Your task to perform on an android device: What's the weather today? Image 0: 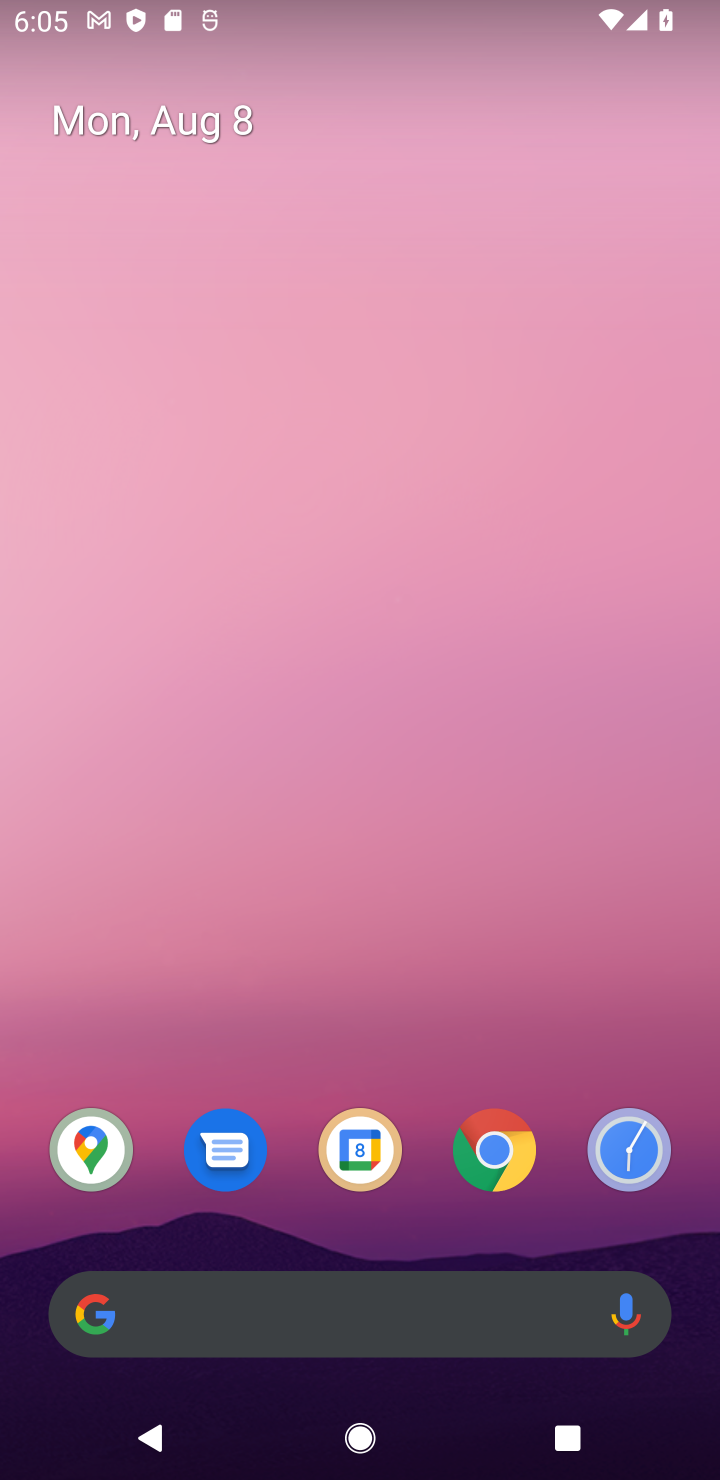
Step 0: click (303, 1292)
Your task to perform on an android device: What's the weather today? Image 1: 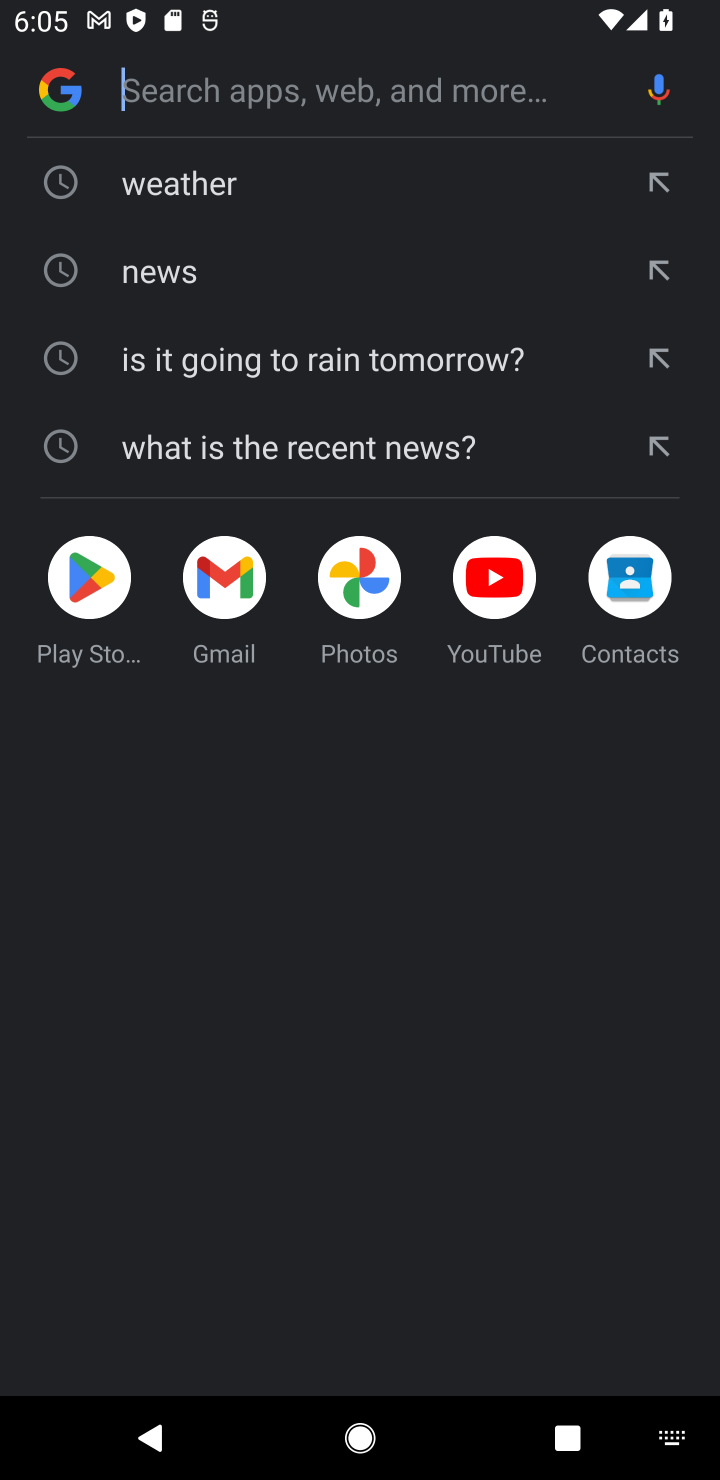
Step 1: type "weather"
Your task to perform on an android device: What's the weather today? Image 2: 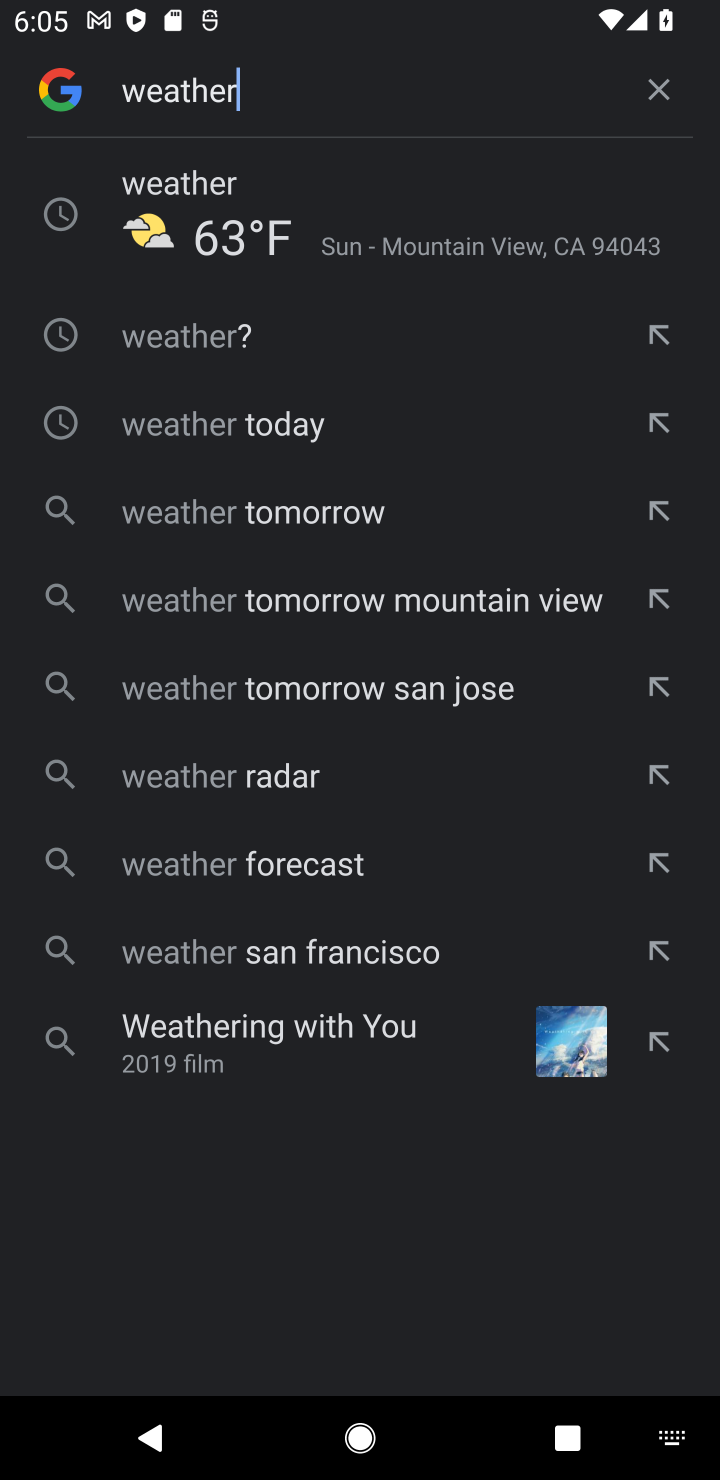
Step 2: click (287, 293)
Your task to perform on an android device: What's the weather today? Image 3: 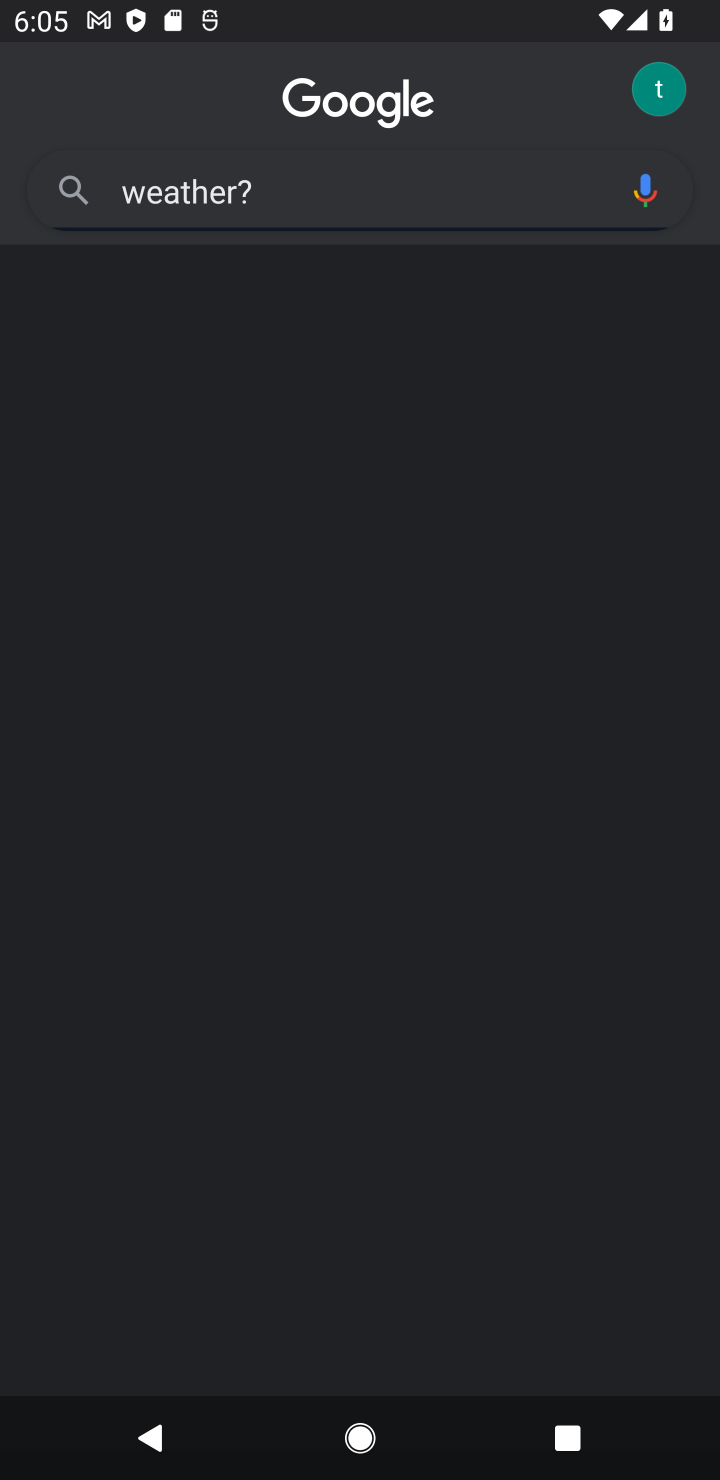
Step 3: task complete